Your task to perform on an android device: open sync settings in chrome Image 0: 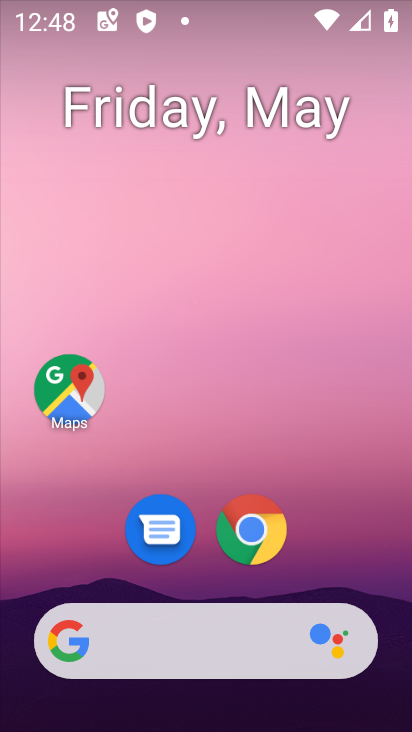
Step 0: click (271, 516)
Your task to perform on an android device: open sync settings in chrome Image 1: 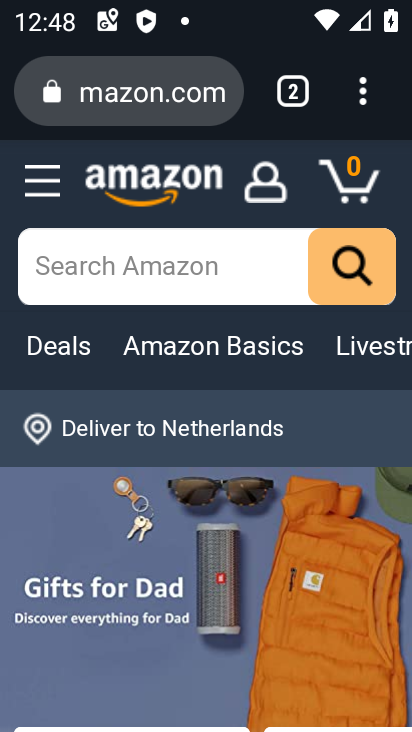
Step 1: click (369, 82)
Your task to perform on an android device: open sync settings in chrome Image 2: 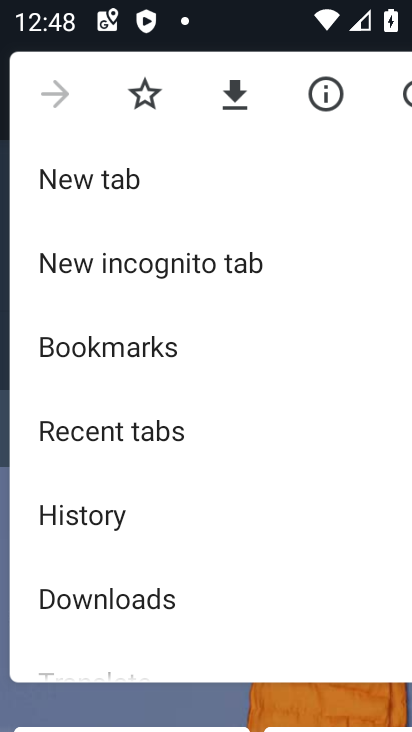
Step 2: task complete